Your task to perform on an android device: Open the map Image 0: 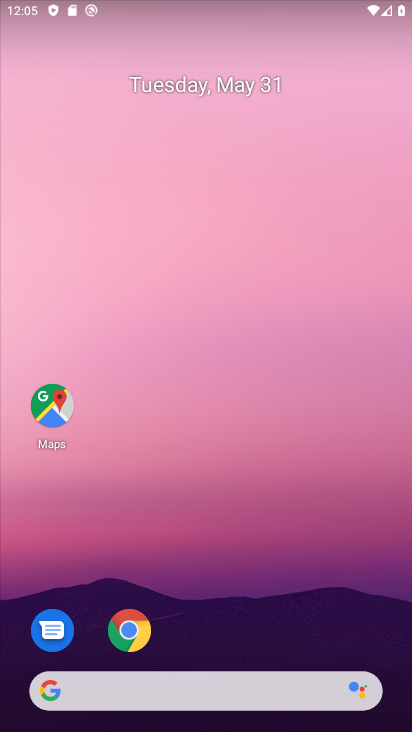
Step 0: click (46, 409)
Your task to perform on an android device: Open the map Image 1: 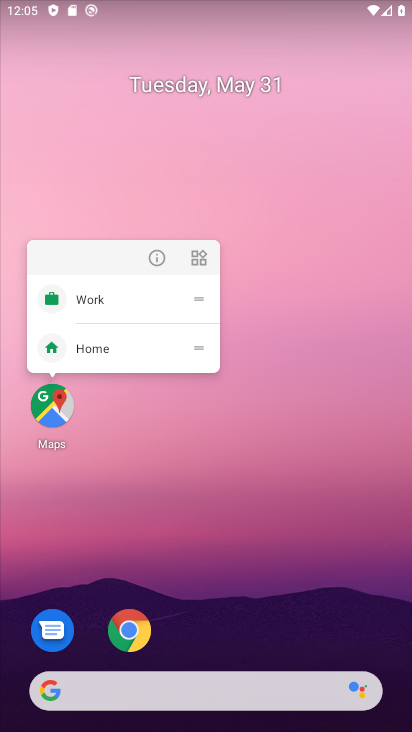
Step 1: click (157, 266)
Your task to perform on an android device: Open the map Image 2: 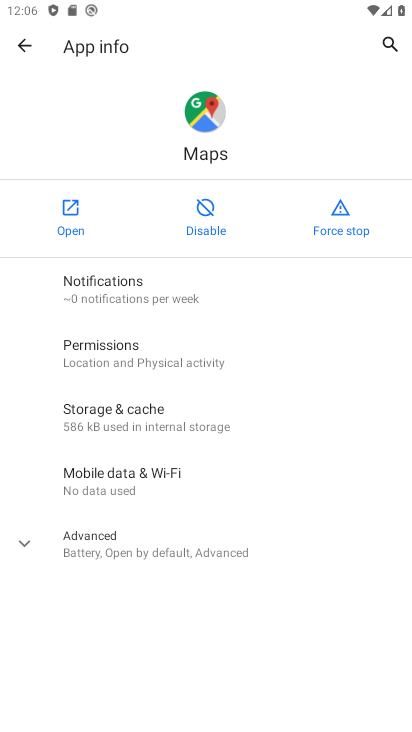
Step 2: click (83, 225)
Your task to perform on an android device: Open the map Image 3: 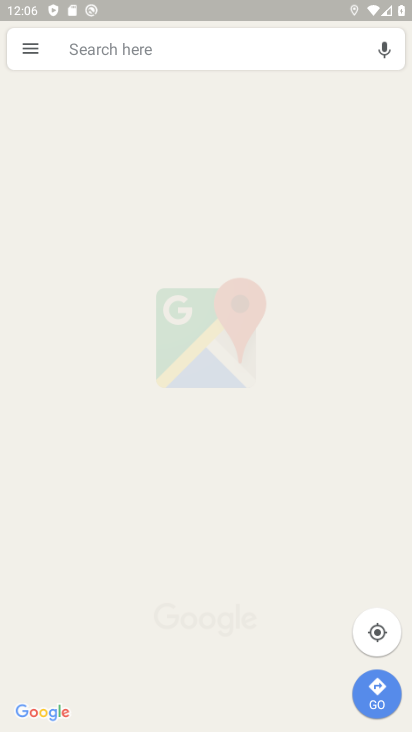
Step 3: task complete